Your task to perform on an android device: see sites visited before in the chrome app Image 0: 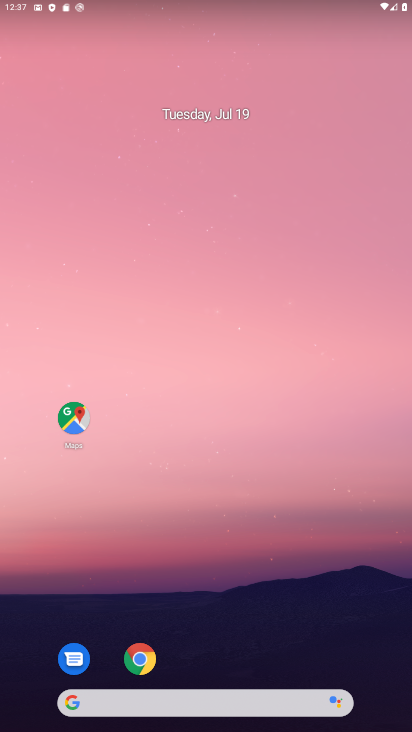
Step 0: click (147, 656)
Your task to perform on an android device: see sites visited before in the chrome app Image 1: 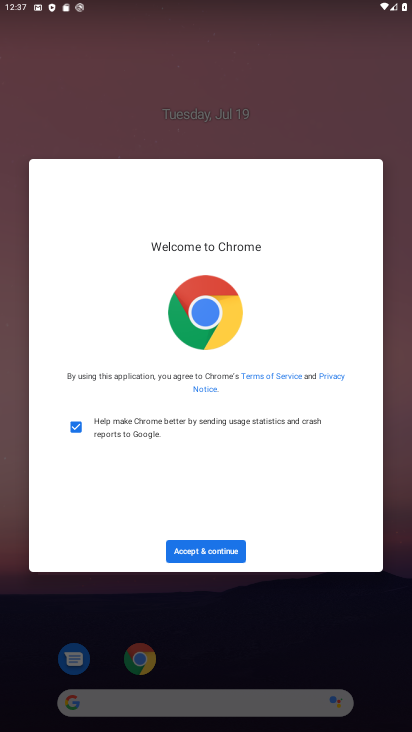
Step 1: click (195, 549)
Your task to perform on an android device: see sites visited before in the chrome app Image 2: 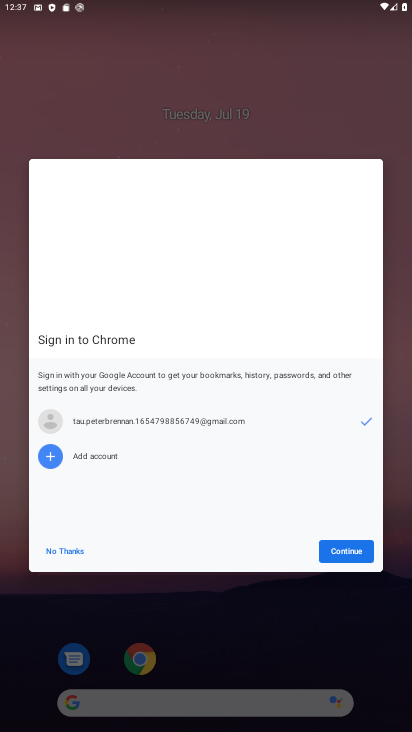
Step 2: click (346, 547)
Your task to perform on an android device: see sites visited before in the chrome app Image 3: 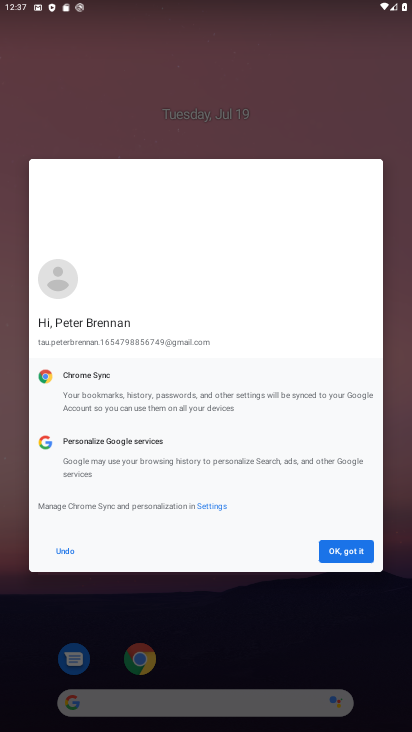
Step 3: click (357, 544)
Your task to perform on an android device: see sites visited before in the chrome app Image 4: 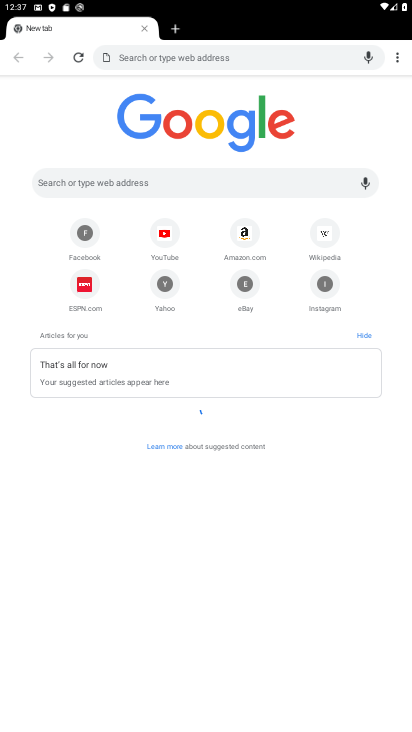
Step 4: click (393, 63)
Your task to perform on an android device: see sites visited before in the chrome app Image 5: 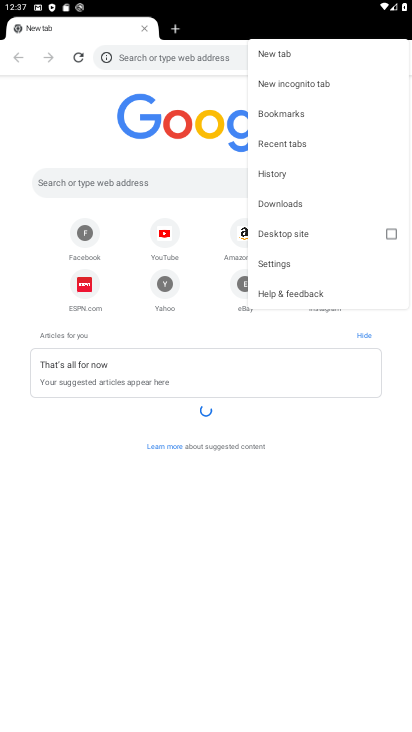
Step 5: click (271, 176)
Your task to perform on an android device: see sites visited before in the chrome app Image 6: 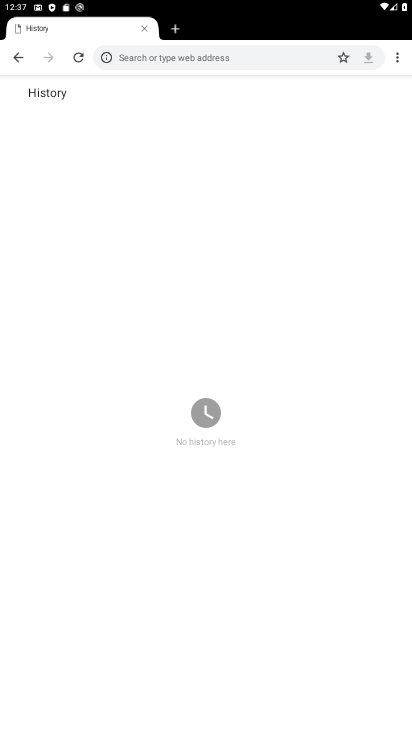
Step 6: task complete